Your task to perform on an android device: What is the recent news? Image 0: 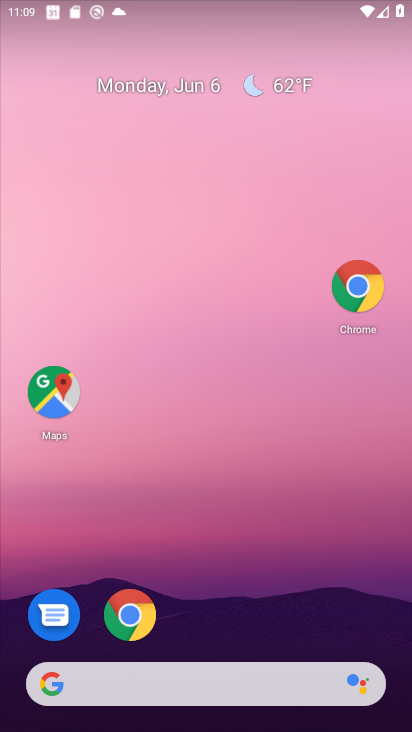
Step 0: drag from (22, 252) to (368, 594)
Your task to perform on an android device: What is the recent news? Image 1: 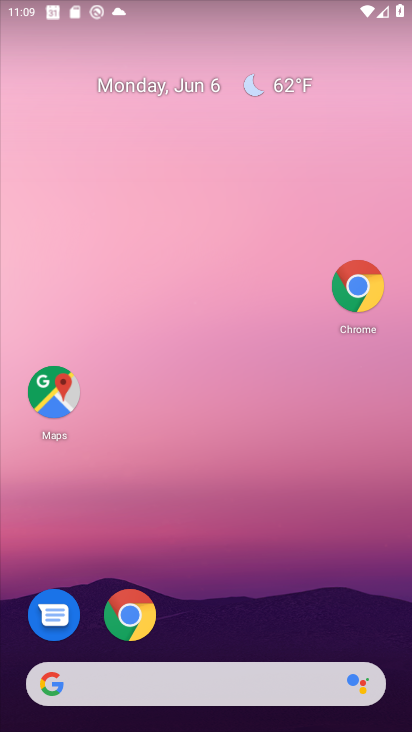
Step 1: drag from (26, 257) to (393, 472)
Your task to perform on an android device: What is the recent news? Image 2: 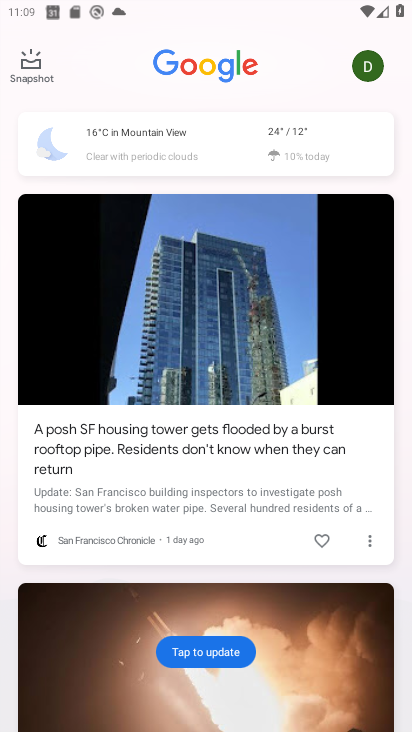
Step 2: drag from (142, 464) to (143, 142)
Your task to perform on an android device: What is the recent news? Image 3: 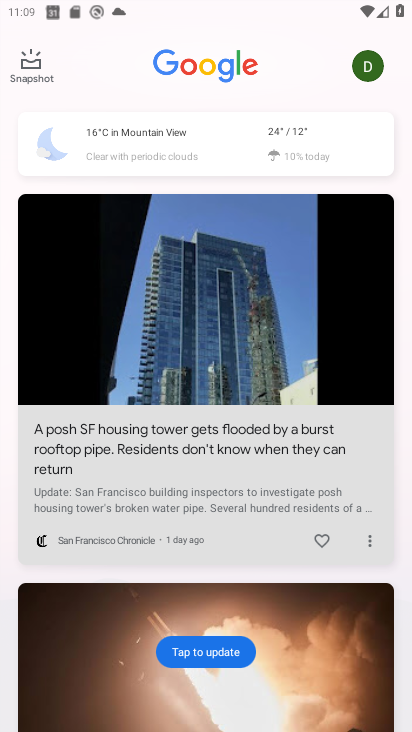
Step 3: drag from (142, 381) to (140, 167)
Your task to perform on an android device: What is the recent news? Image 4: 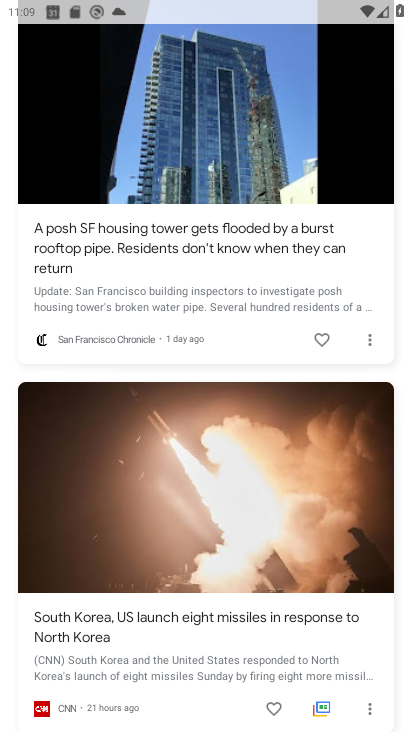
Step 4: drag from (138, 432) to (139, 174)
Your task to perform on an android device: What is the recent news? Image 5: 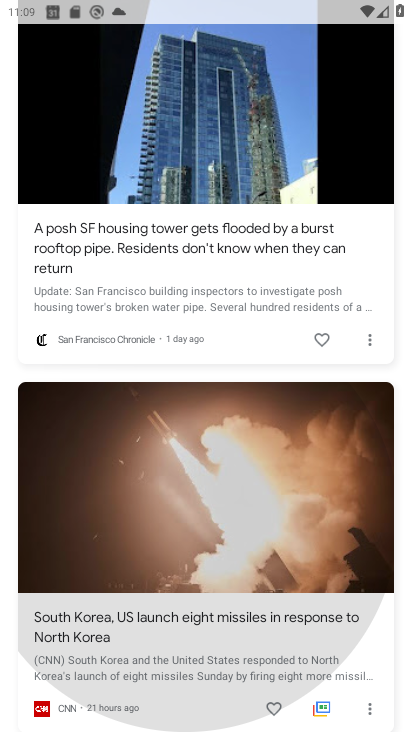
Step 5: drag from (130, 446) to (147, 61)
Your task to perform on an android device: What is the recent news? Image 6: 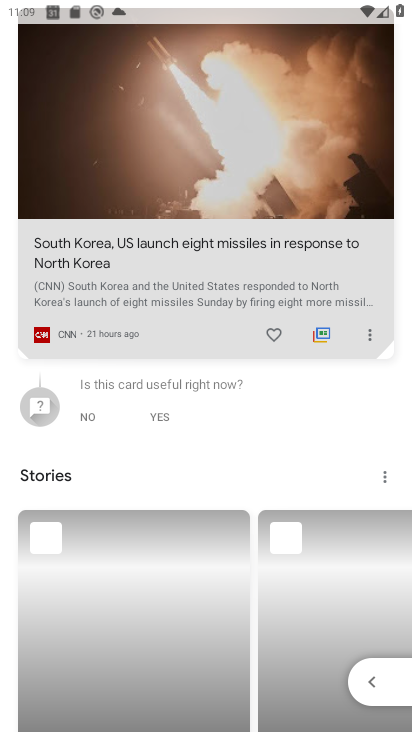
Step 6: drag from (141, 429) to (140, 135)
Your task to perform on an android device: What is the recent news? Image 7: 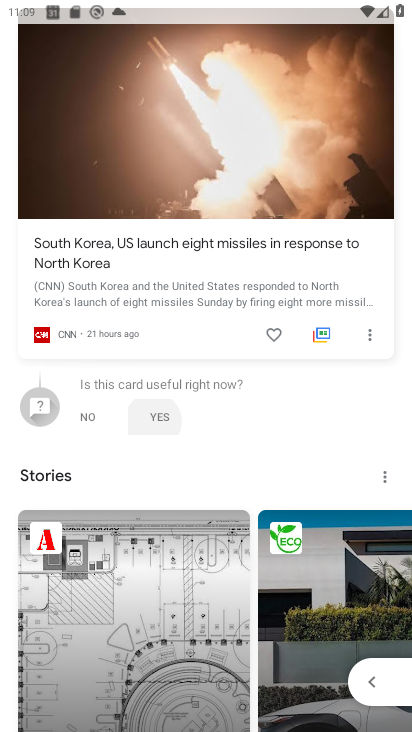
Step 7: drag from (140, 111) to (140, 441)
Your task to perform on an android device: What is the recent news? Image 8: 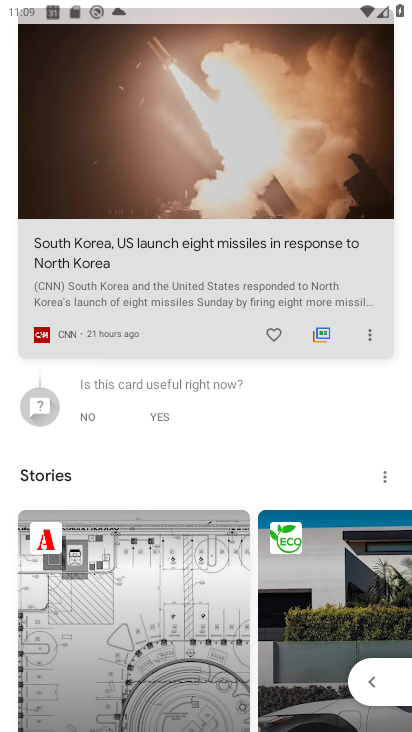
Step 8: drag from (165, 187) to (164, 469)
Your task to perform on an android device: What is the recent news? Image 9: 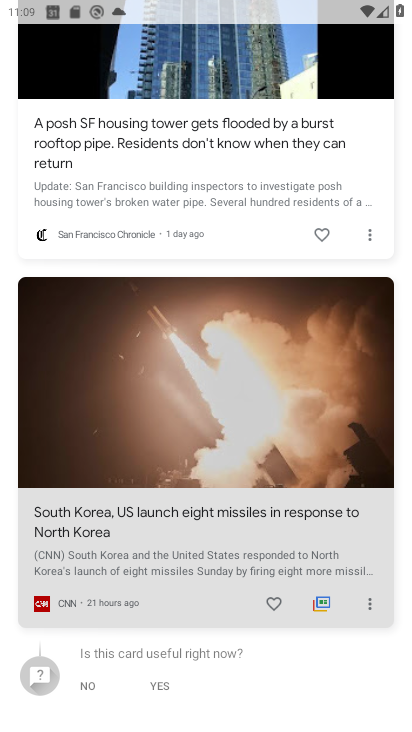
Step 9: drag from (128, 166) to (160, 419)
Your task to perform on an android device: What is the recent news? Image 10: 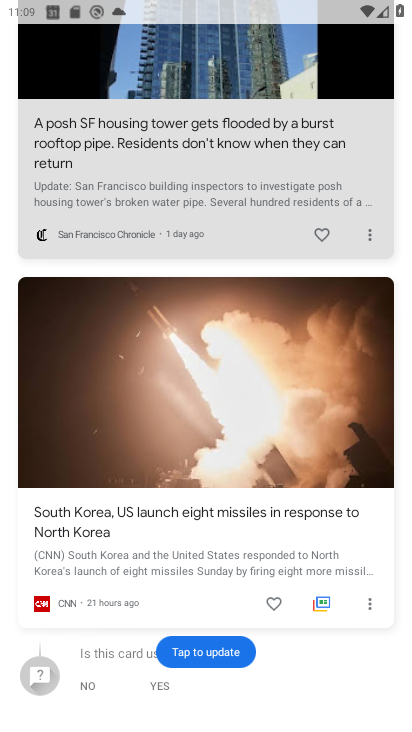
Step 10: drag from (127, 147) to (156, 494)
Your task to perform on an android device: What is the recent news? Image 11: 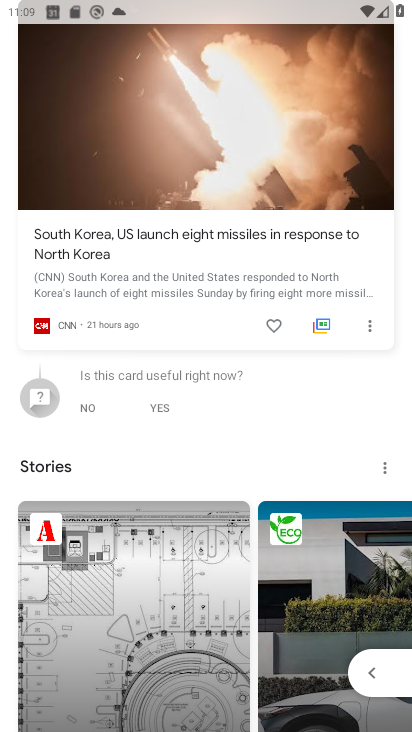
Step 11: drag from (156, 167) to (172, 476)
Your task to perform on an android device: What is the recent news? Image 12: 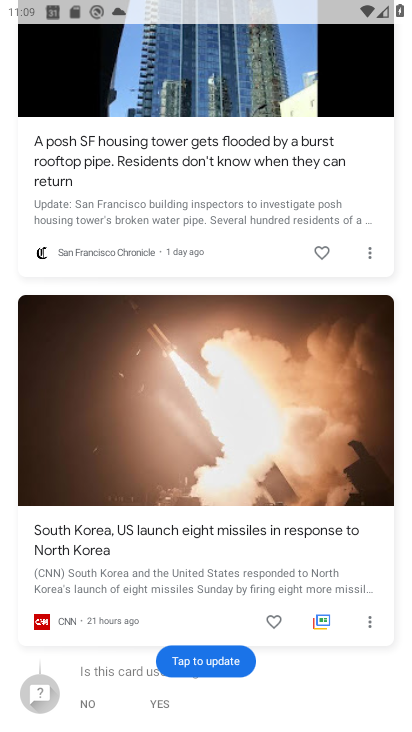
Step 12: drag from (162, 199) to (183, 466)
Your task to perform on an android device: What is the recent news? Image 13: 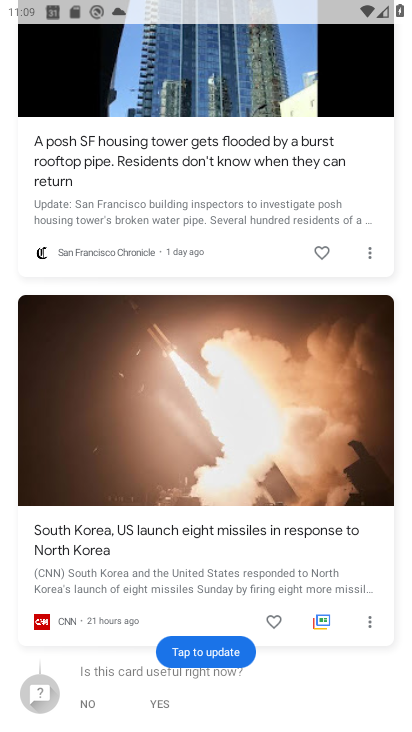
Step 13: drag from (169, 153) to (168, 437)
Your task to perform on an android device: What is the recent news? Image 14: 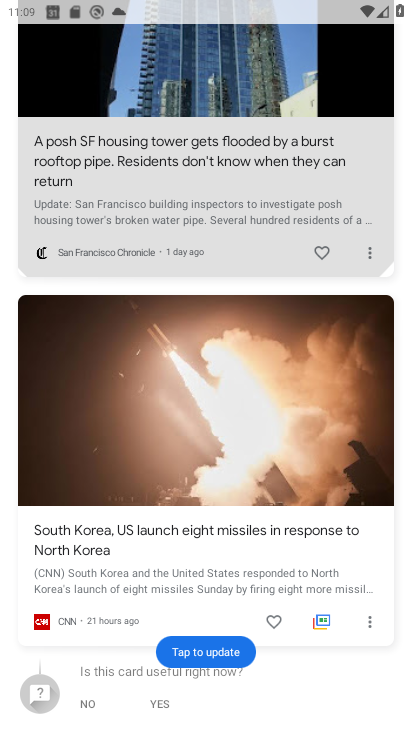
Step 14: drag from (167, 133) to (169, 447)
Your task to perform on an android device: What is the recent news? Image 15: 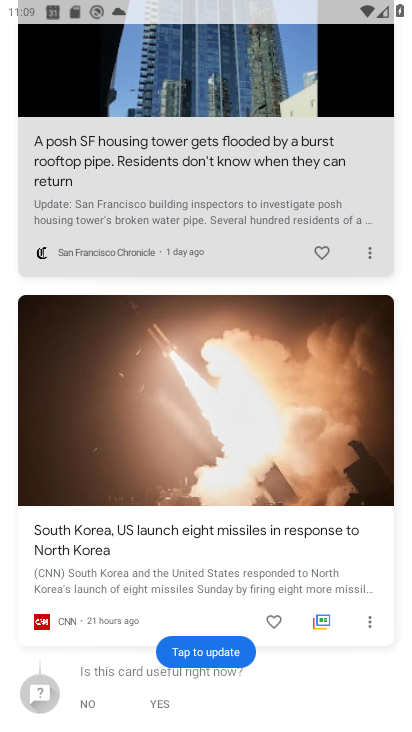
Step 15: drag from (210, 152) to (216, 516)
Your task to perform on an android device: What is the recent news? Image 16: 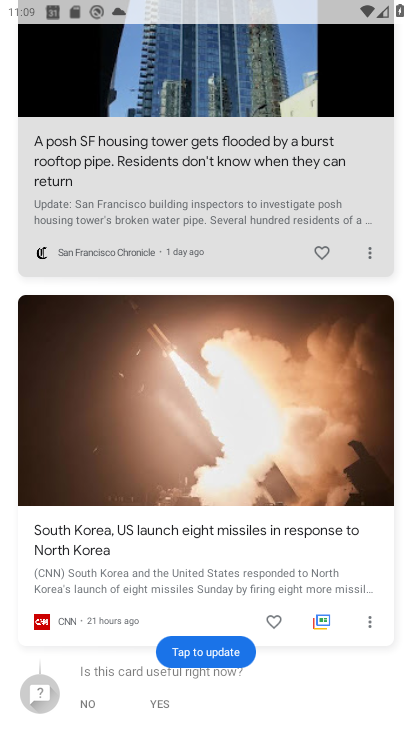
Step 16: drag from (158, 182) to (170, 436)
Your task to perform on an android device: What is the recent news? Image 17: 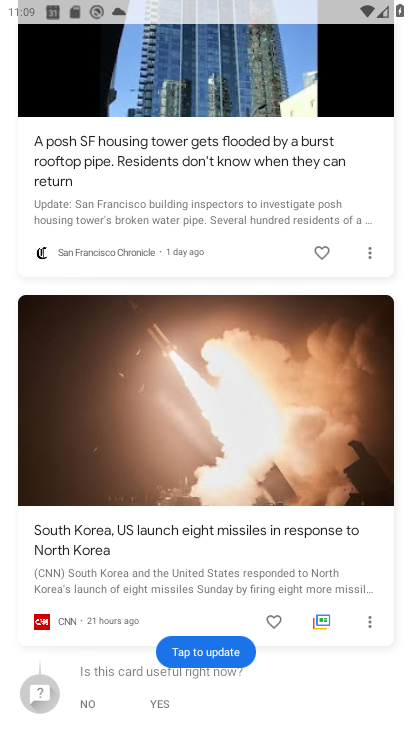
Step 17: click (163, 448)
Your task to perform on an android device: What is the recent news? Image 18: 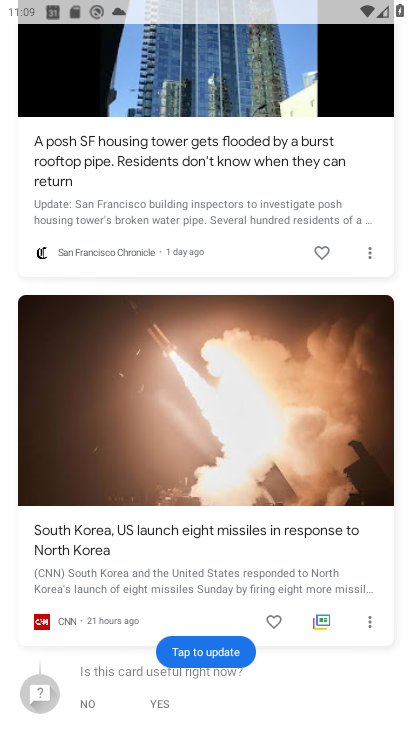
Step 18: drag from (154, 125) to (140, 441)
Your task to perform on an android device: What is the recent news? Image 19: 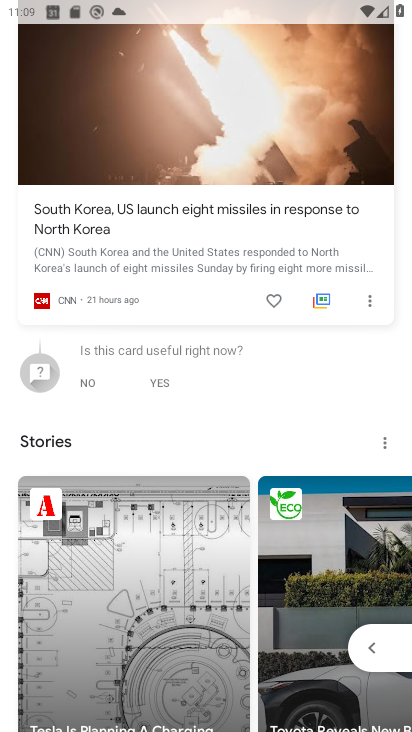
Step 19: drag from (198, 184) to (239, 469)
Your task to perform on an android device: What is the recent news? Image 20: 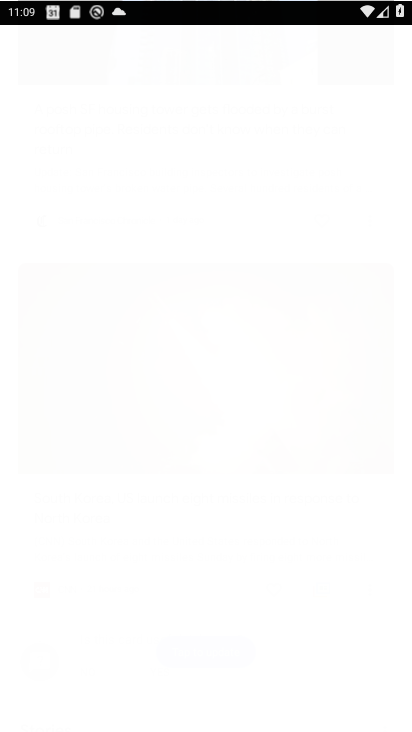
Step 20: drag from (161, 136) to (158, 487)
Your task to perform on an android device: What is the recent news? Image 21: 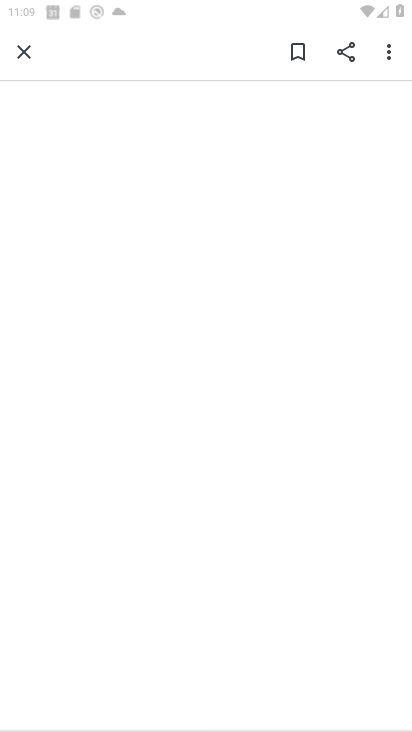
Step 21: drag from (149, 140) to (135, 480)
Your task to perform on an android device: What is the recent news? Image 22: 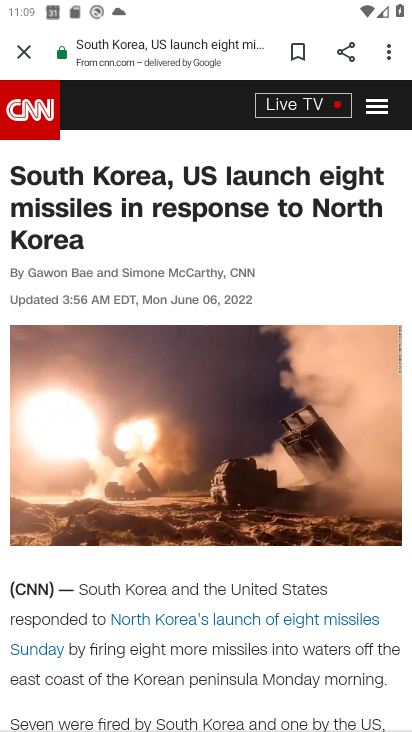
Step 22: click (17, 46)
Your task to perform on an android device: What is the recent news? Image 23: 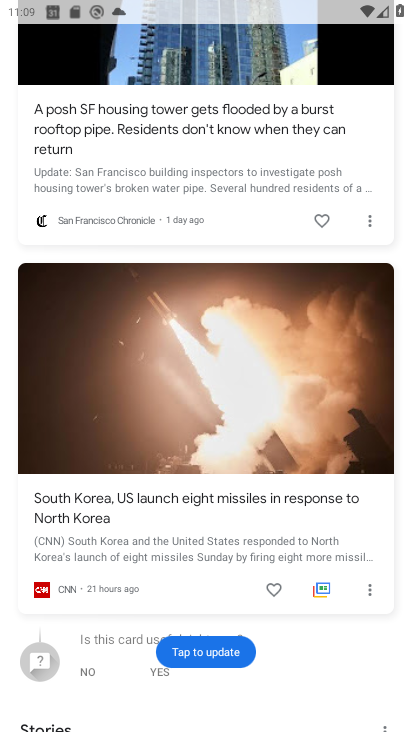
Step 23: task complete